Your task to perform on an android device: turn on javascript in the chrome app Image 0: 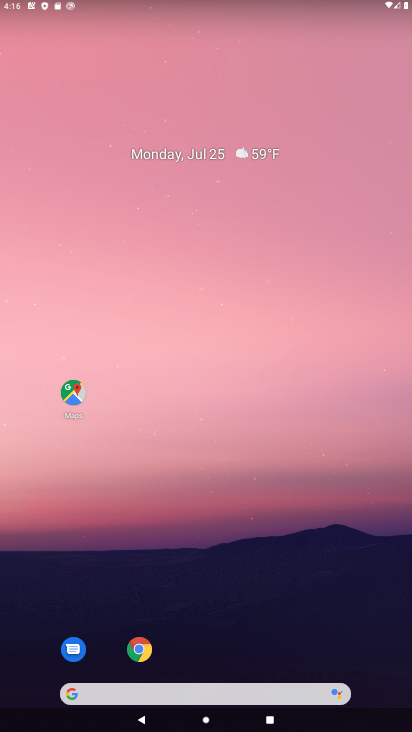
Step 0: drag from (282, 563) to (230, 60)
Your task to perform on an android device: turn on javascript in the chrome app Image 1: 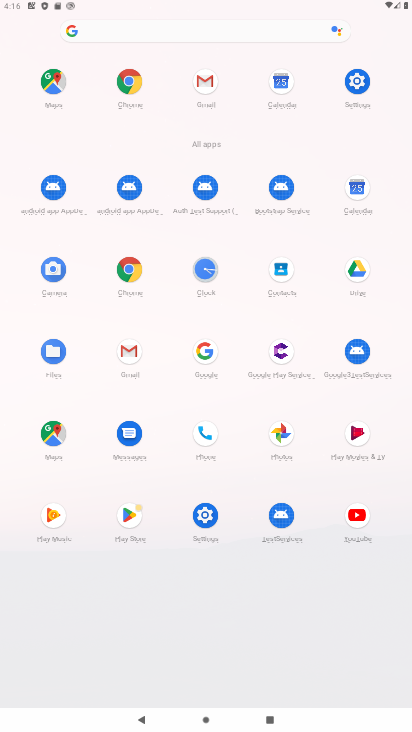
Step 1: click (132, 84)
Your task to perform on an android device: turn on javascript in the chrome app Image 2: 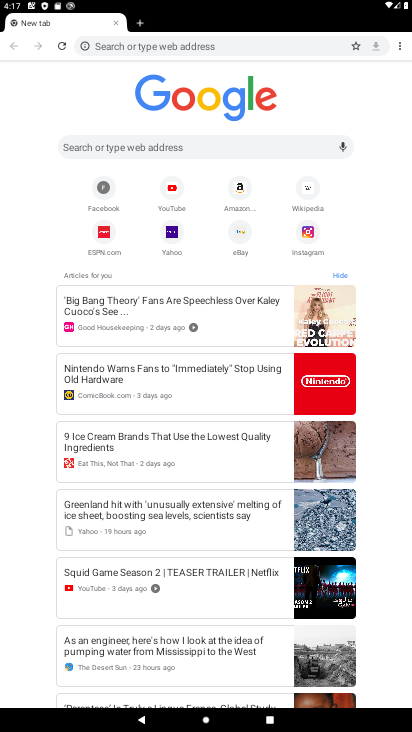
Step 2: drag from (397, 48) to (314, 215)
Your task to perform on an android device: turn on javascript in the chrome app Image 3: 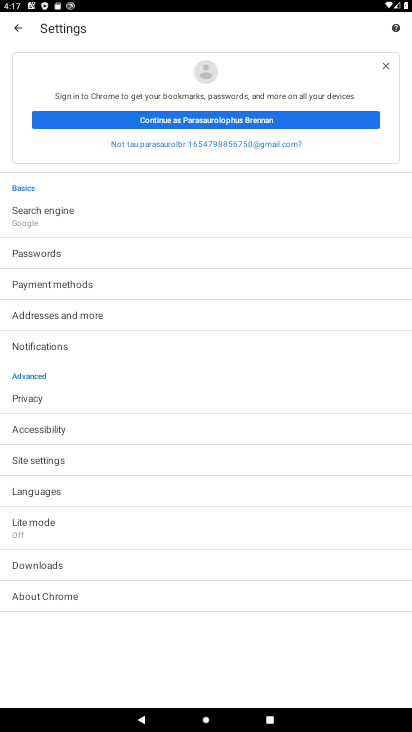
Step 3: click (34, 457)
Your task to perform on an android device: turn on javascript in the chrome app Image 4: 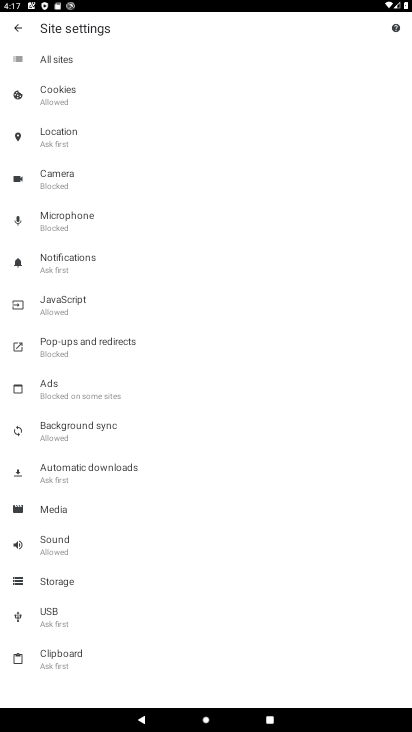
Step 4: click (55, 304)
Your task to perform on an android device: turn on javascript in the chrome app Image 5: 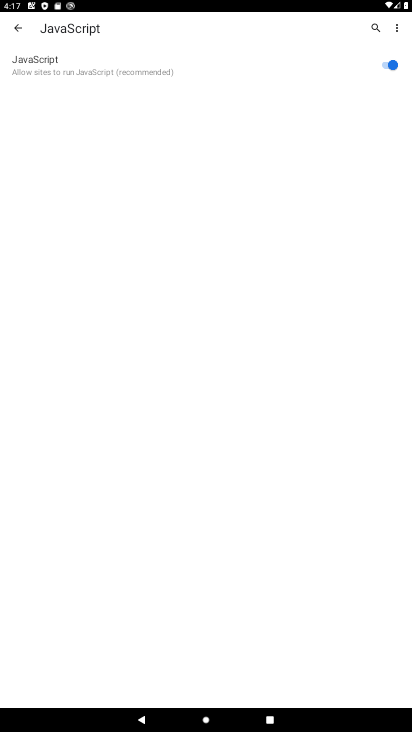
Step 5: task complete